Your task to perform on an android device: Open Android settings Image 0: 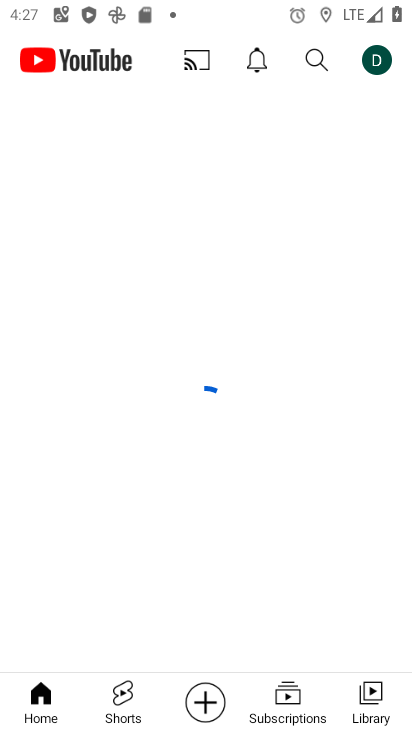
Step 0: press home button
Your task to perform on an android device: Open Android settings Image 1: 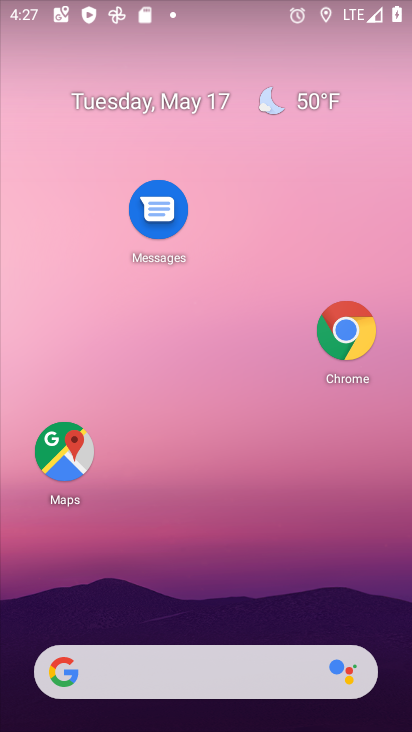
Step 1: drag from (227, 577) to (221, 26)
Your task to perform on an android device: Open Android settings Image 2: 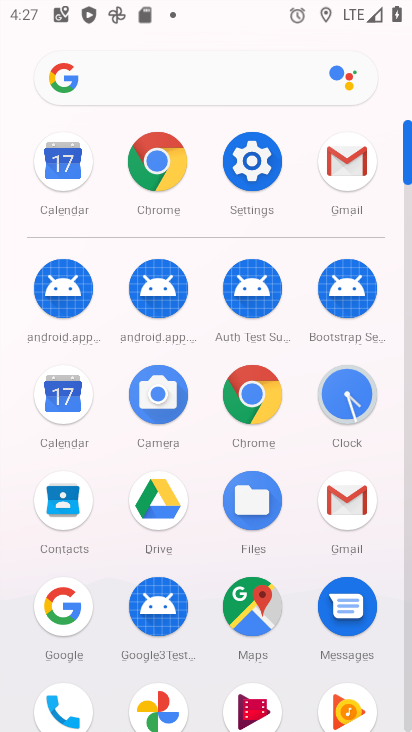
Step 2: click (254, 152)
Your task to perform on an android device: Open Android settings Image 3: 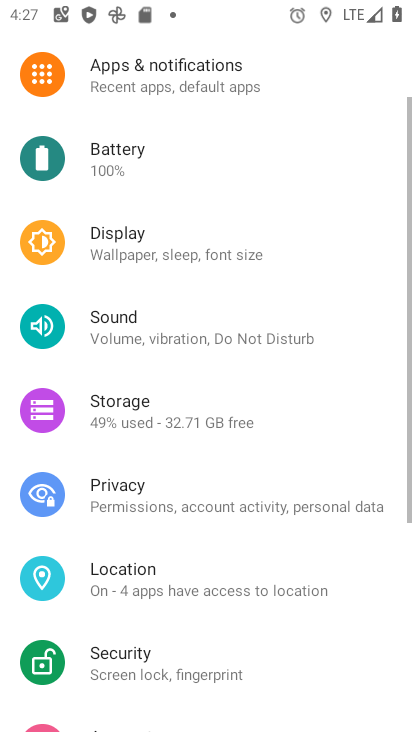
Step 3: task complete